Your task to perform on an android device: Is it going to rain this weekend? Image 0: 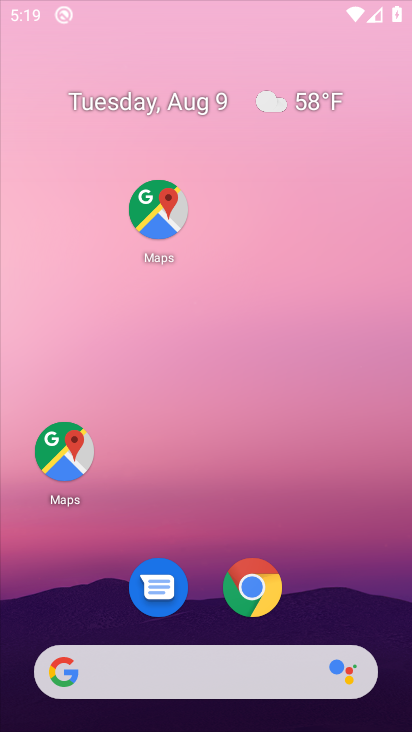
Step 0: click (166, 219)
Your task to perform on an android device: Is it going to rain this weekend? Image 1: 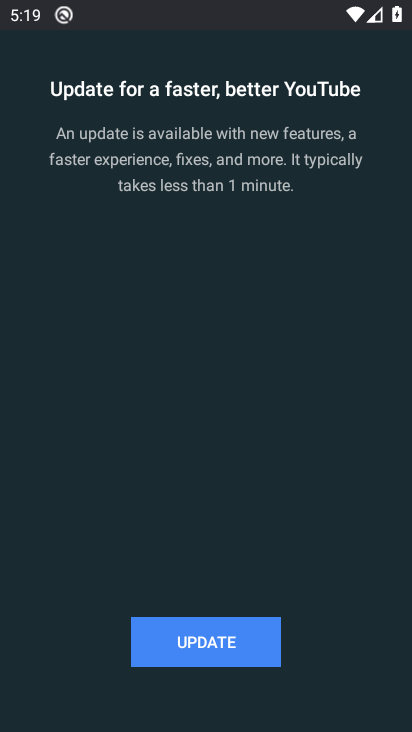
Step 1: press back button
Your task to perform on an android device: Is it going to rain this weekend? Image 2: 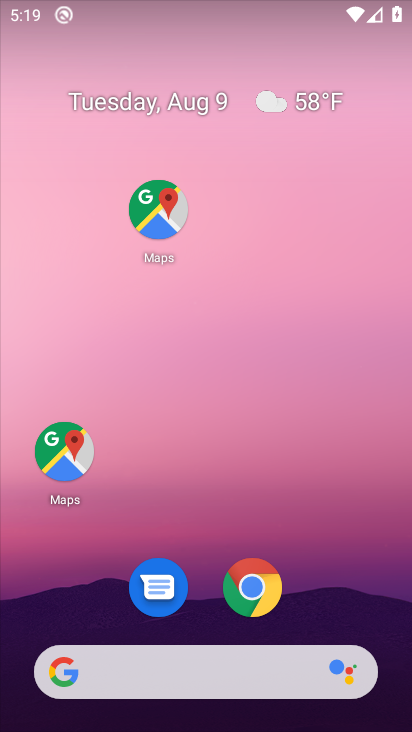
Step 2: click (270, 86)
Your task to perform on an android device: Is it going to rain this weekend? Image 3: 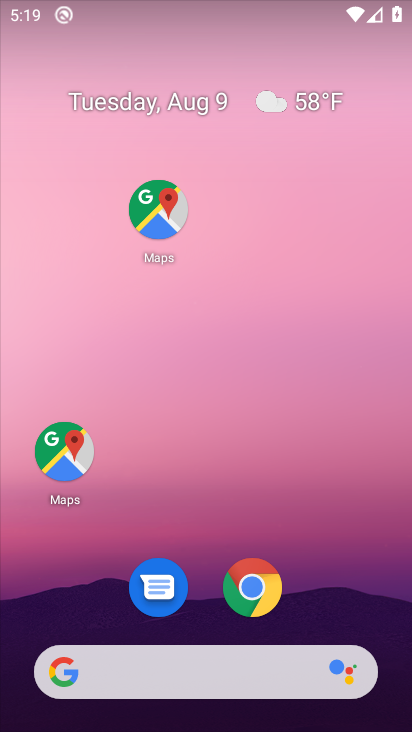
Step 3: click (275, 94)
Your task to perform on an android device: Is it going to rain this weekend? Image 4: 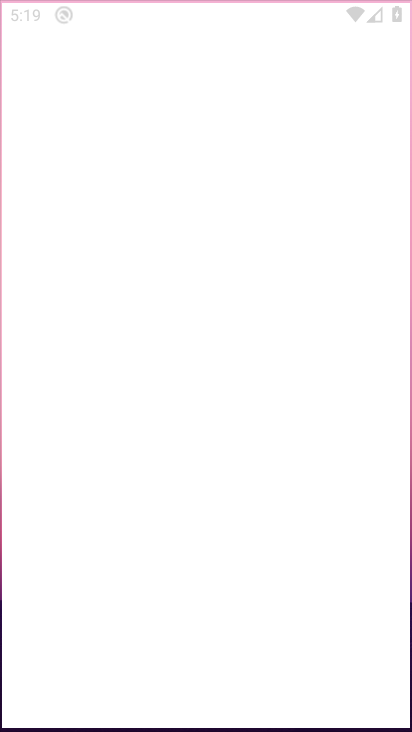
Step 4: click (283, 98)
Your task to perform on an android device: Is it going to rain this weekend? Image 5: 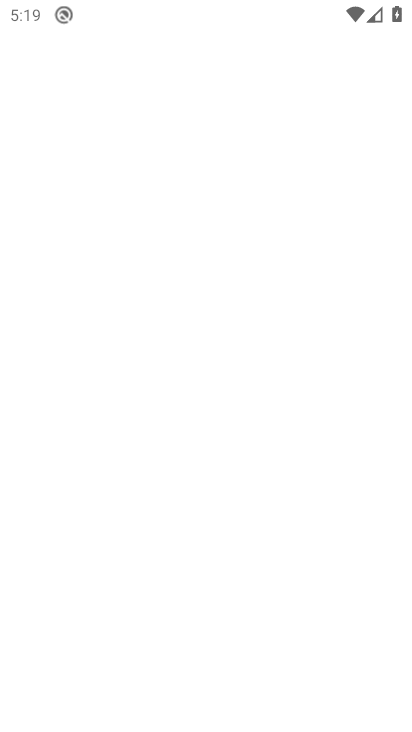
Step 5: click (285, 101)
Your task to perform on an android device: Is it going to rain this weekend? Image 6: 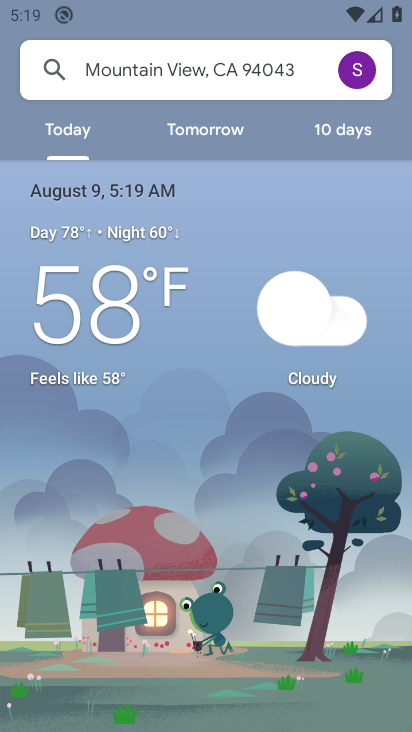
Step 6: click (358, 124)
Your task to perform on an android device: Is it going to rain this weekend? Image 7: 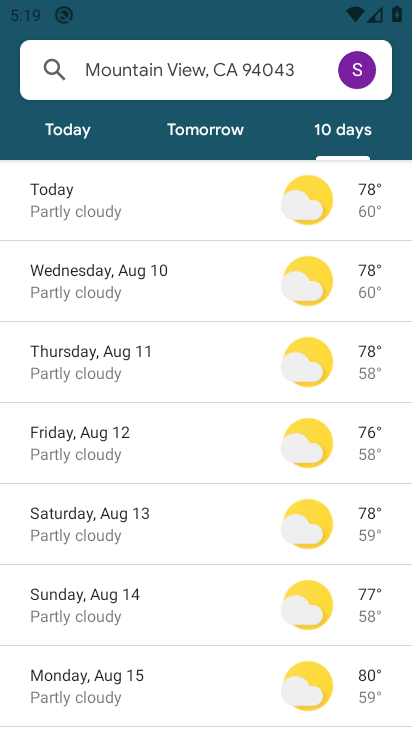
Step 7: task complete